Your task to perform on an android device: open app "DoorDash - Dasher" Image 0: 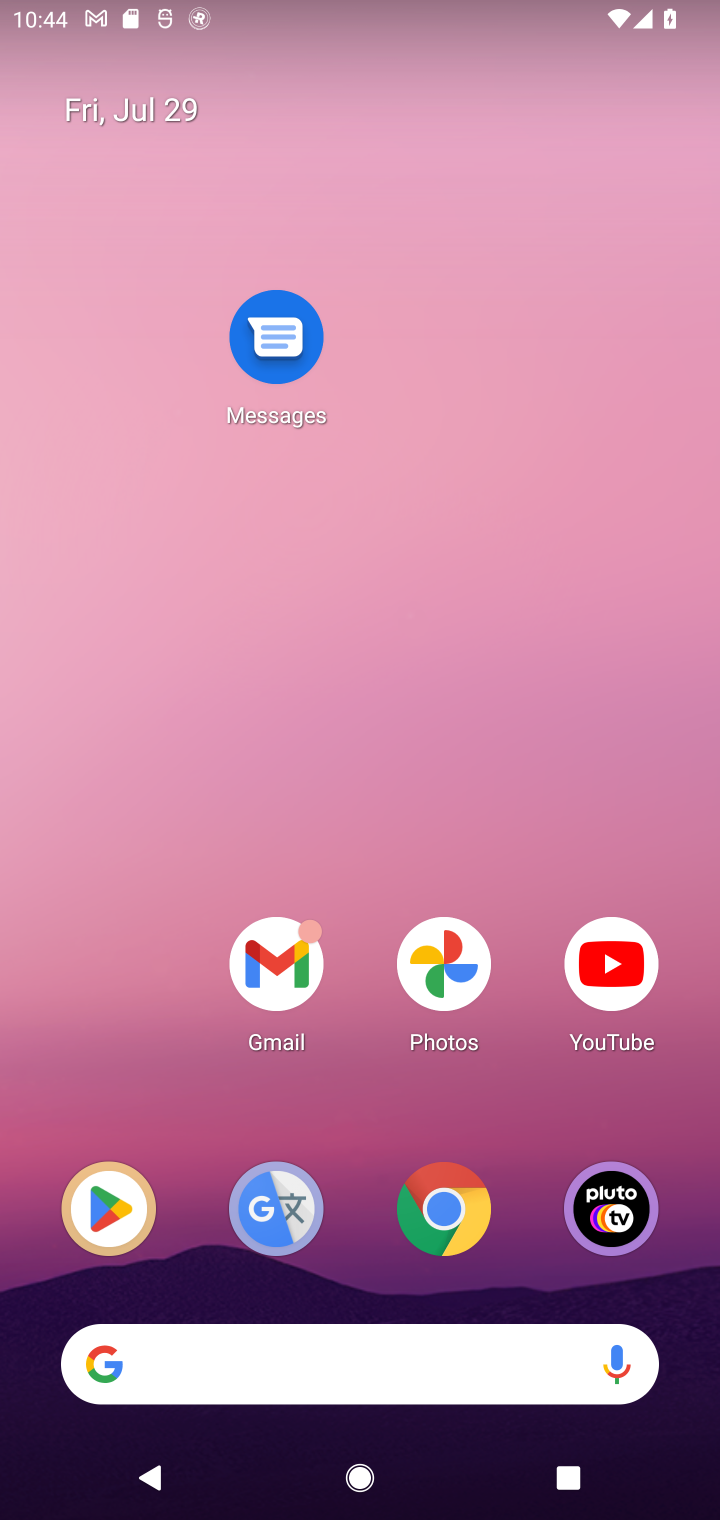
Step 0: drag from (336, 1376) to (476, 171)
Your task to perform on an android device: open app "DoorDash - Dasher" Image 1: 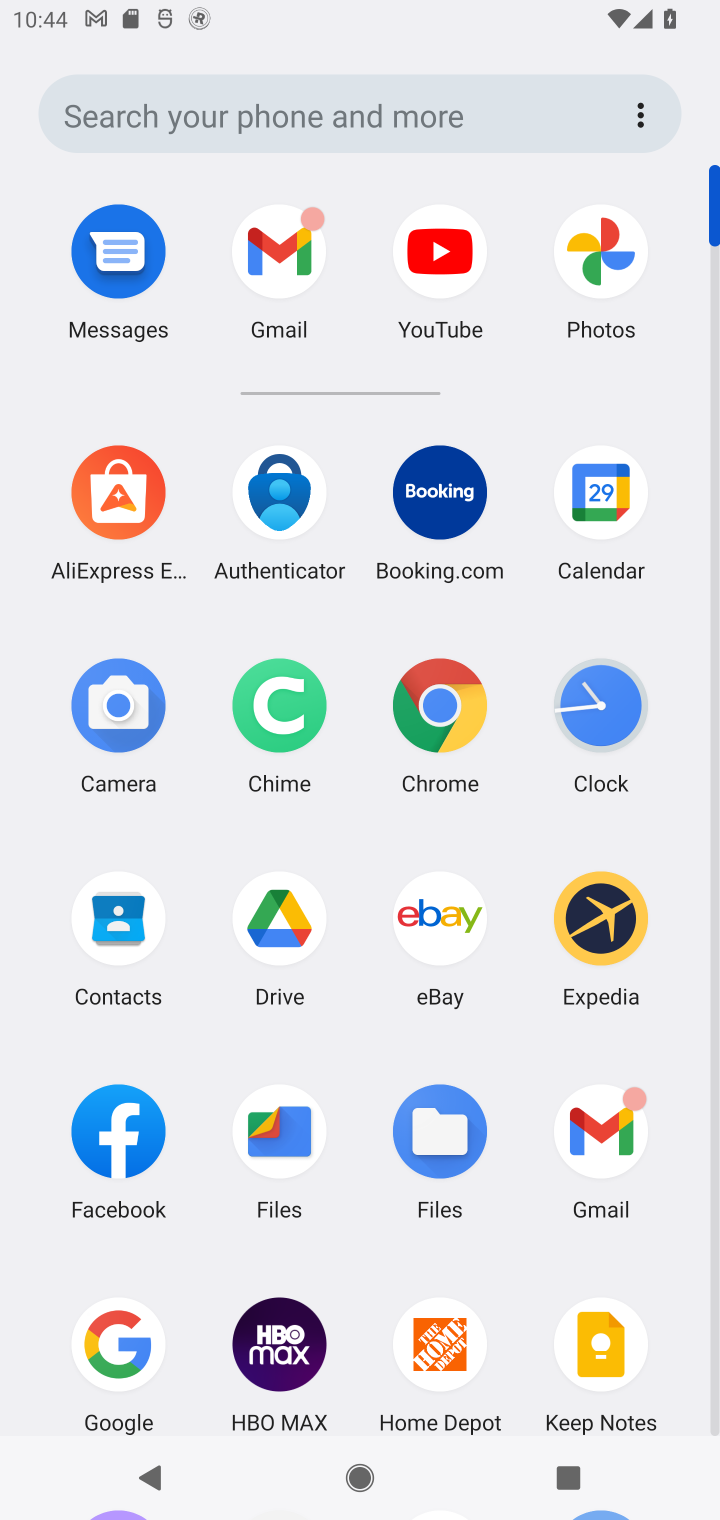
Step 1: drag from (327, 1216) to (317, 434)
Your task to perform on an android device: open app "DoorDash - Dasher" Image 2: 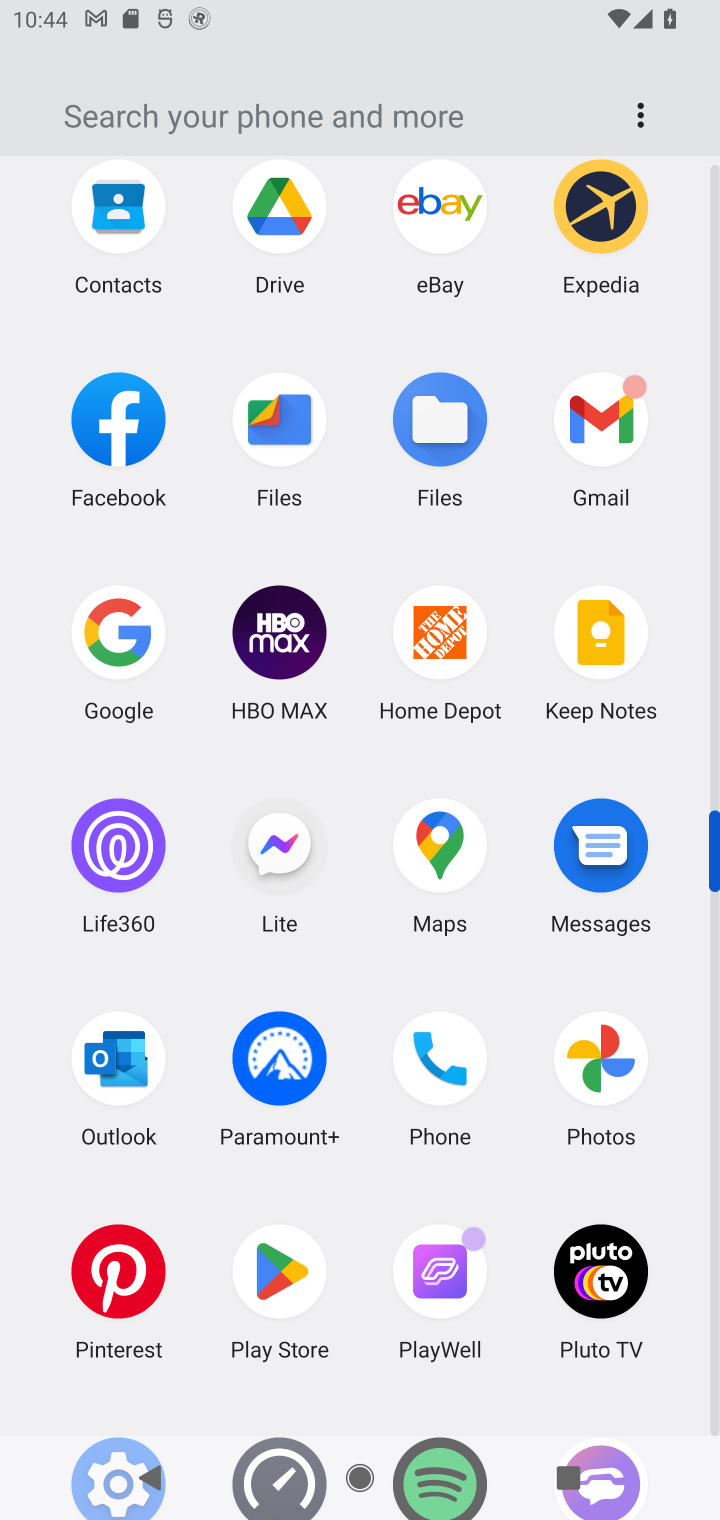
Step 2: click (285, 1271)
Your task to perform on an android device: open app "DoorDash - Dasher" Image 3: 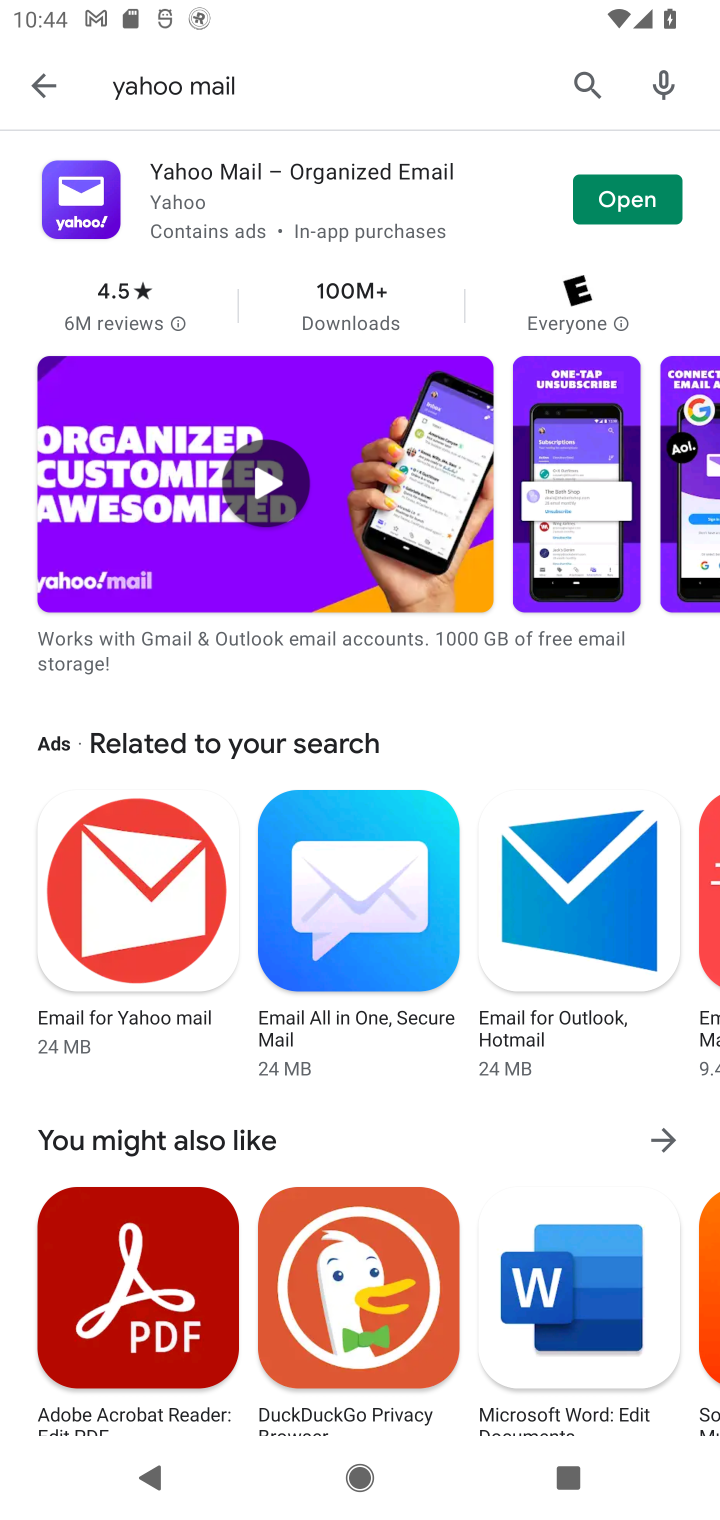
Step 3: click (589, 78)
Your task to perform on an android device: open app "DoorDash - Dasher" Image 4: 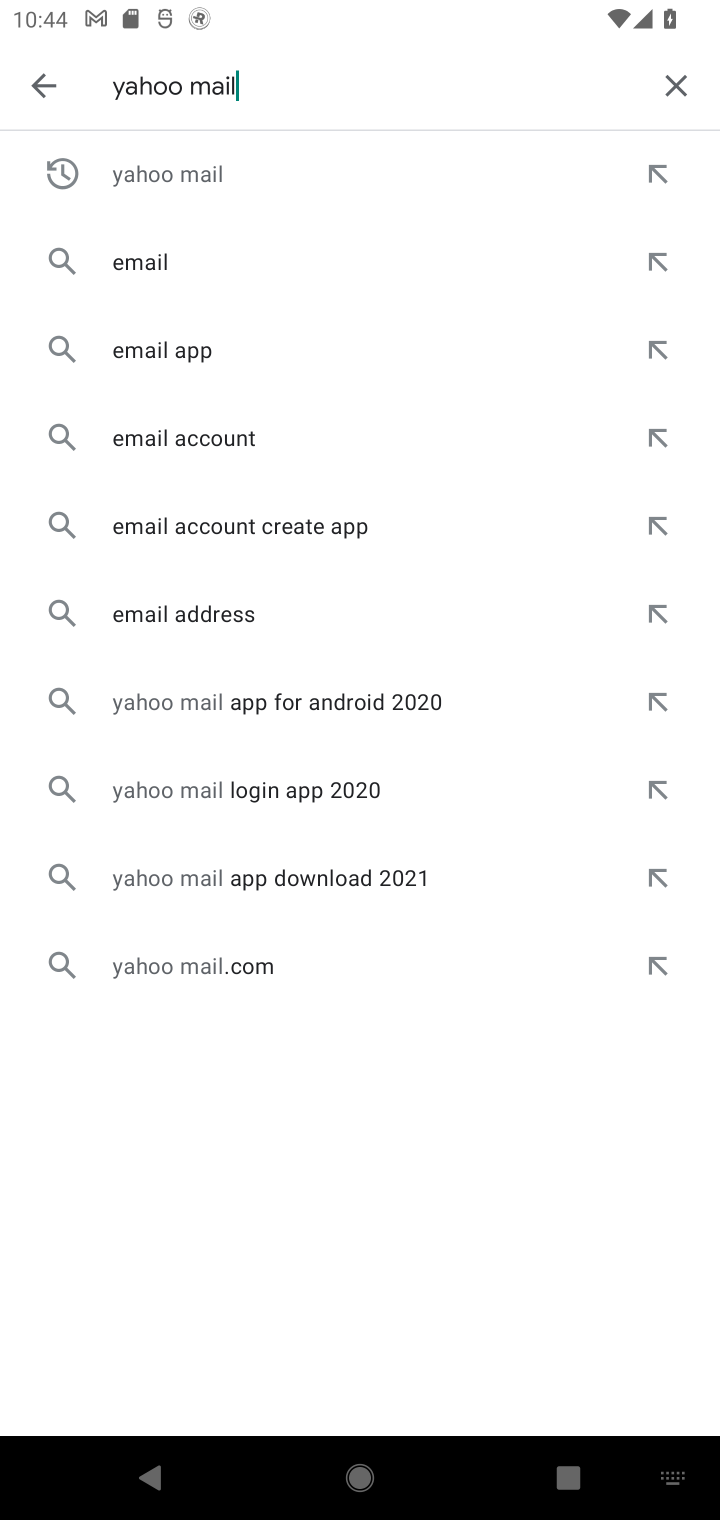
Step 4: click (669, 82)
Your task to perform on an android device: open app "DoorDash - Dasher" Image 5: 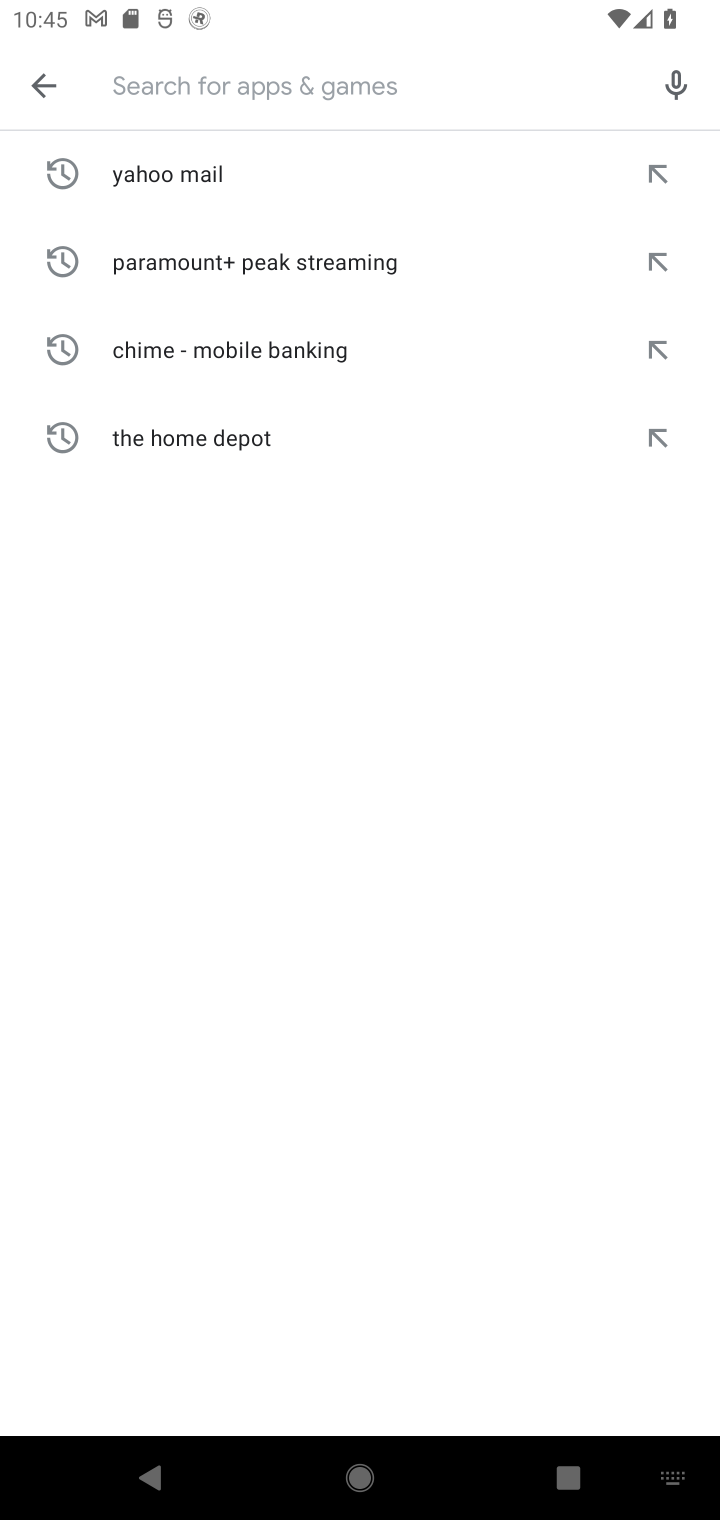
Step 5: type "DoorDash - Dasher"
Your task to perform on an android device: open app "DoorDash - Dasher" Image 6: 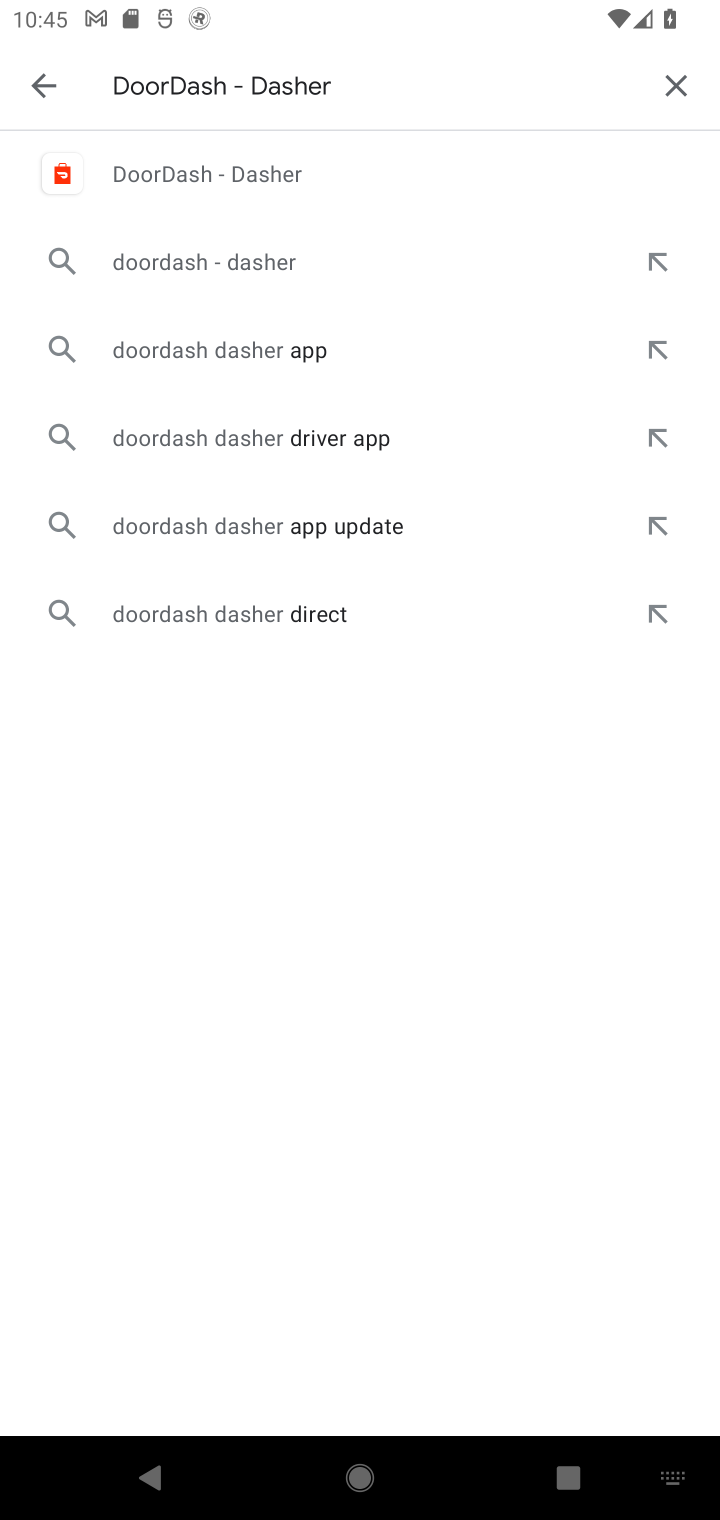
Step 6: click (188, 169)
Your task to perform on an android device: open app "DoorDash - Dasher" Image 7: 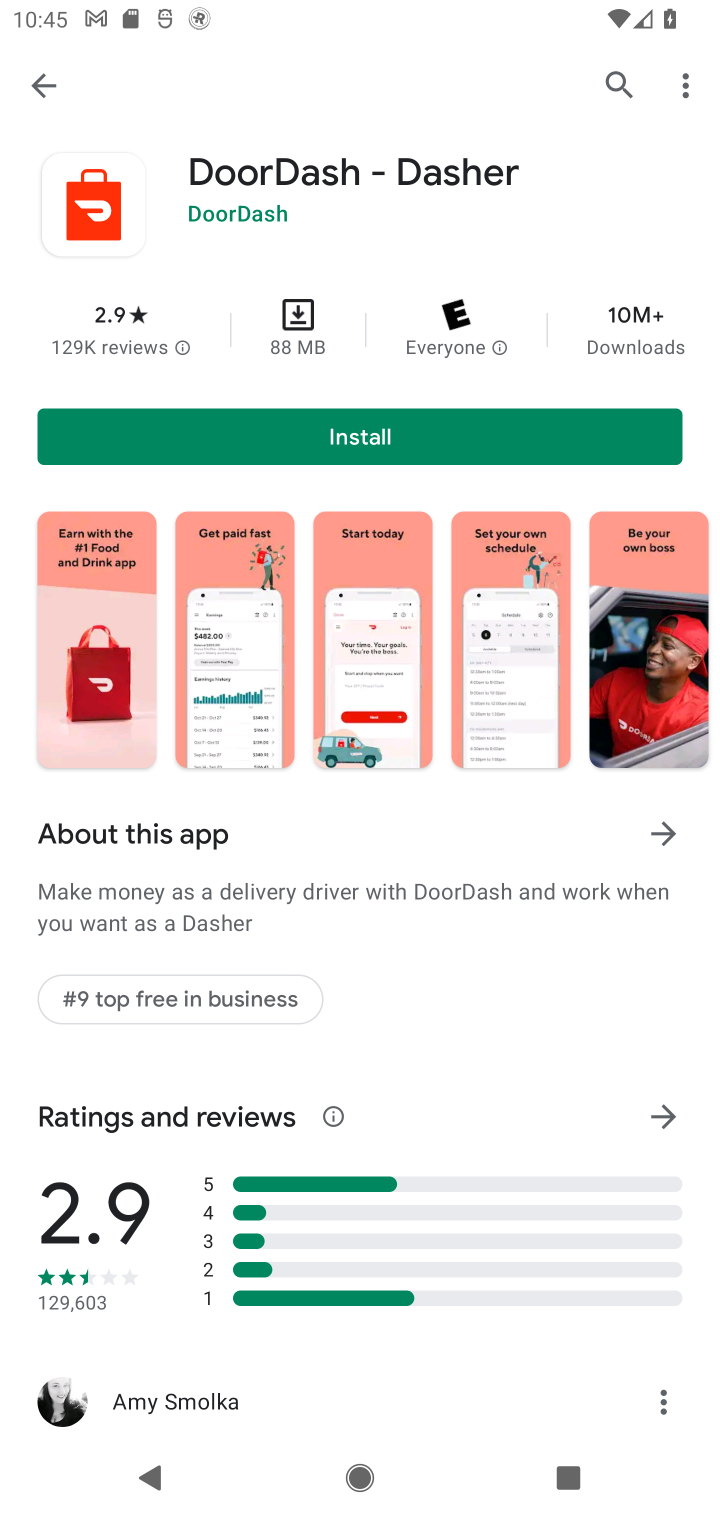
Step 7: task complete